Your task to perform on an android device: clear history in the chrome app Image 0: 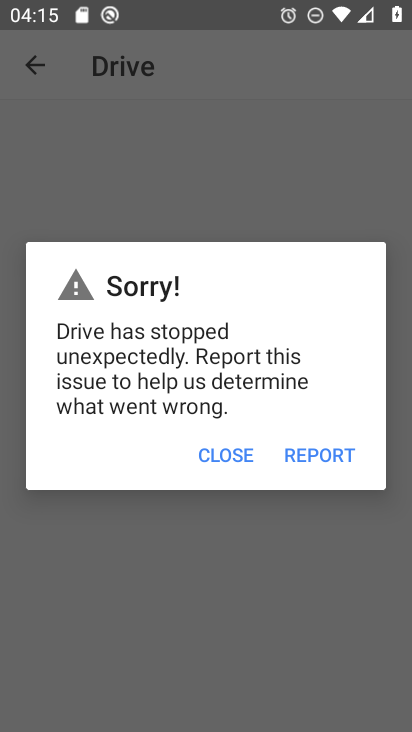
Step 0: press home button
Your task to perform on an android device: clear history in the chrome app Image 1: 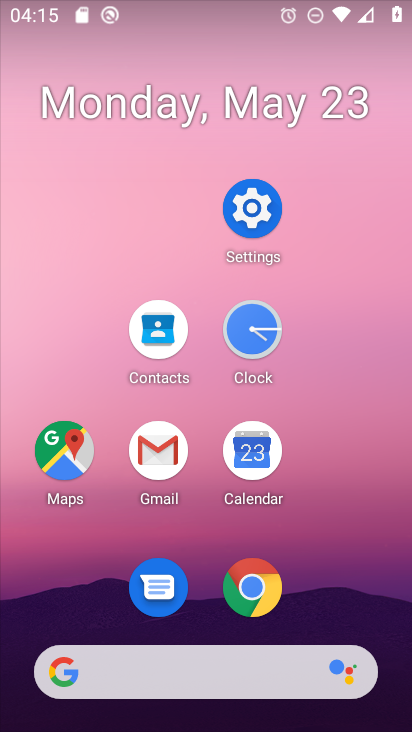
Step 1: click (253, 590)
Your task to perform on an android device: clear history in the chrome app Image 2: 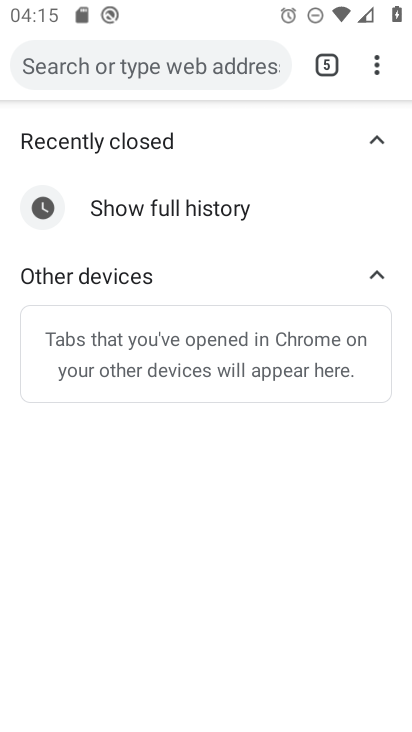
Step 2: click (386, 80)
Your task to perform on an android device: clear history in the chrome app Image 3: 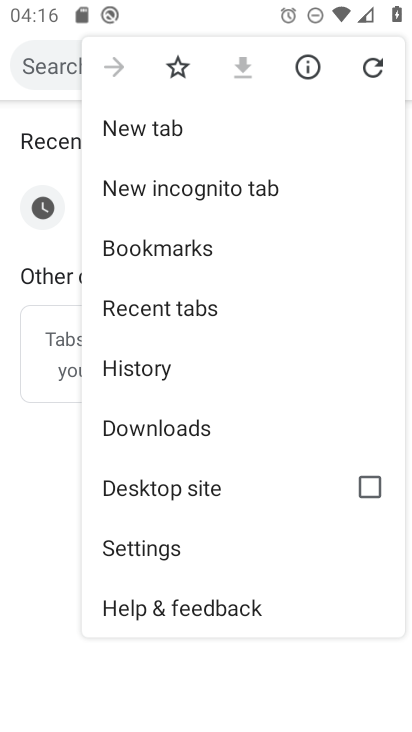
Step 3: click (183, 368)
Your task to perform on an android device: clear history in the chrome app Image 4: 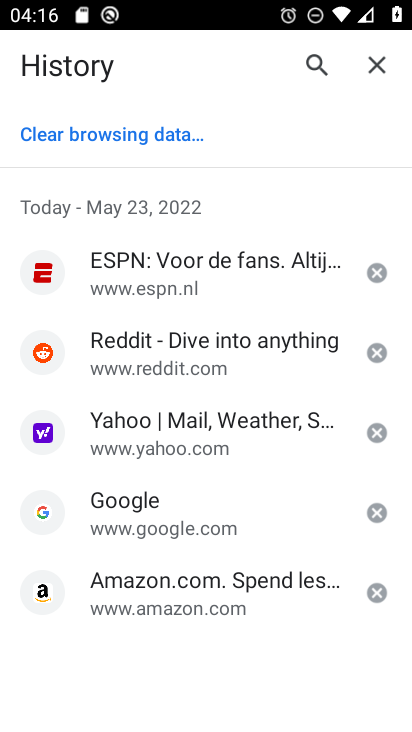
Step 4: click (186, 150)
Your task to perform on an android device: clear history in the chrome app Image 5: 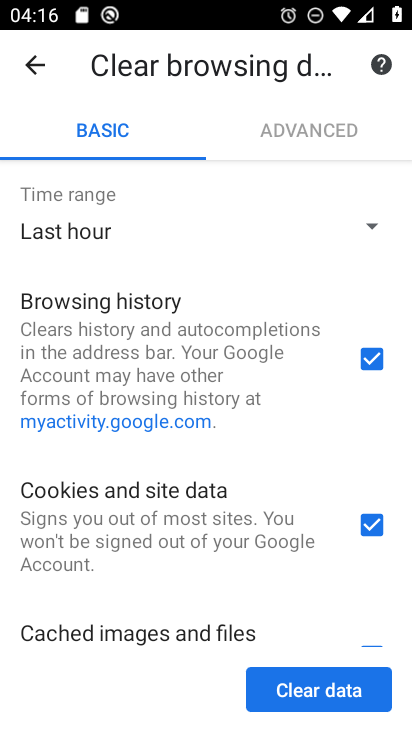
Step 5: click (302, 678)
Your task to perform on an android device: clear history in the chrome app Image 6: 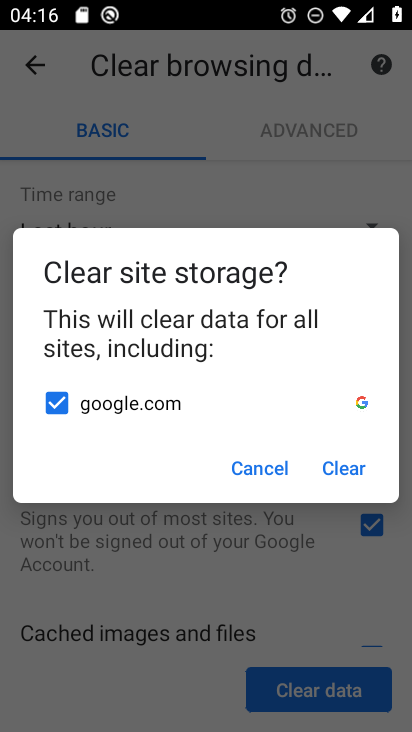
Step 6: click (335, 470)
Your task to perform on an android device: clear history in the chrome app Image 7: 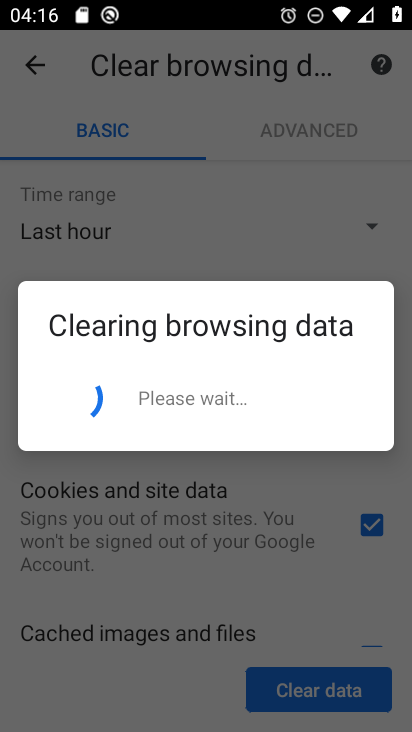
Step 7: task complete